Your task to perform on an android device: turn notification dots off Image 0: 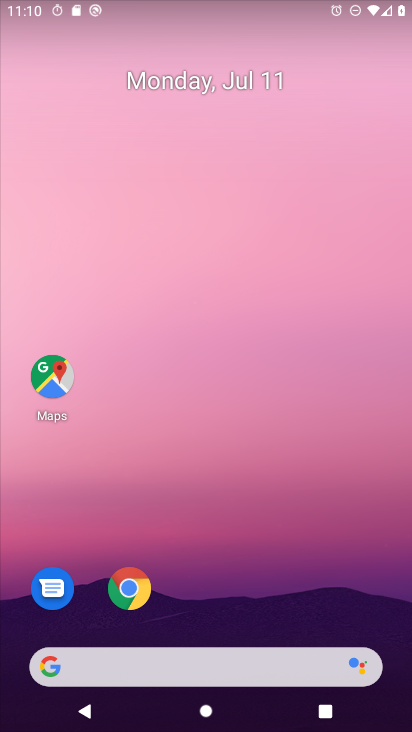
Step 0: drag from (148, 613) to (261, 45)
Your task to perform on an android device: turn notification dots off Image 1: 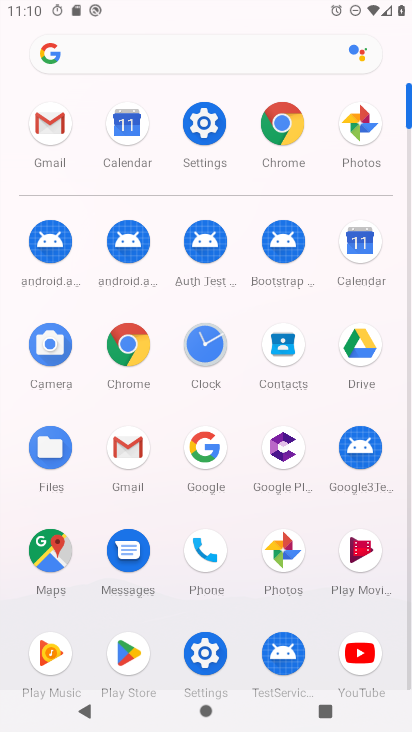
Step 1: click (199, 109)
Your task to perform on an android device: turn notification dots off Image 2: 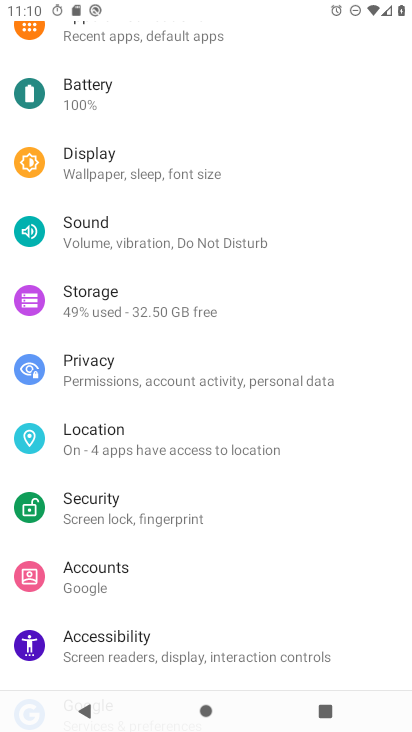
Step 2: drag from (193, 140) to (196, 617)
Your task to perform on an android device: turn notification dots off Image 3: 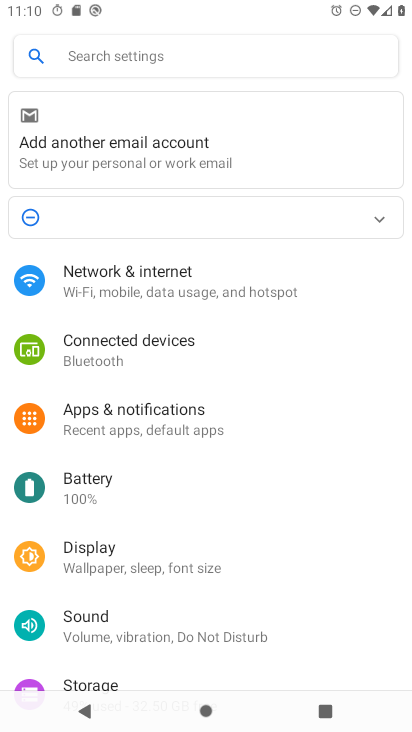
Step 3: click (181, 421)
Your task to perform on an android device: turn notification dots off Image 4: 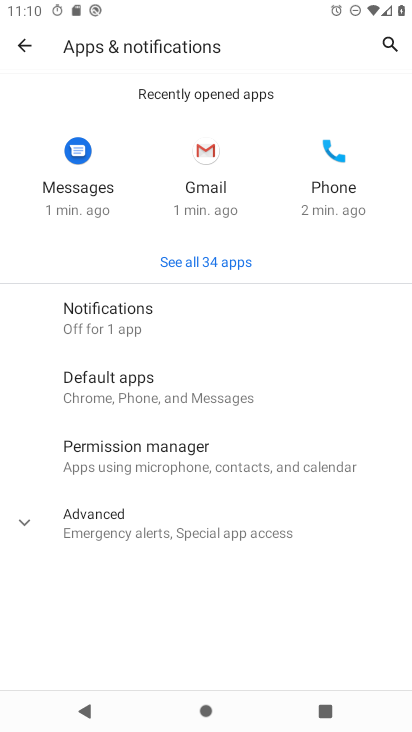
Step 4: click (158, 311)
Your task to perform on an android device: turn notification dots off Image 5: 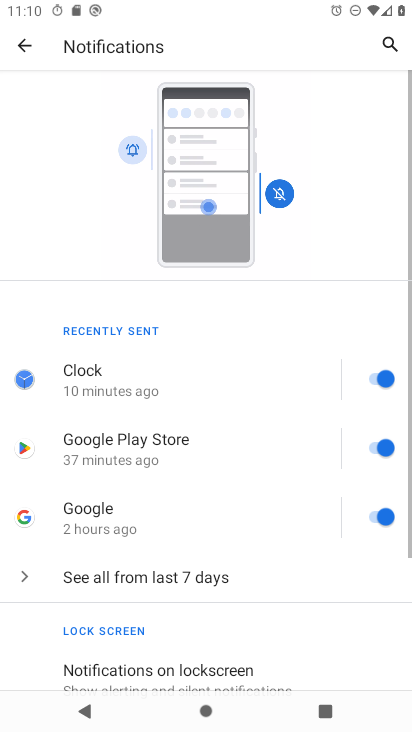
Step 5: drag from (206, 652) to (250, 211)
Your task to perform on an android device: turn notification dots off Image 6: 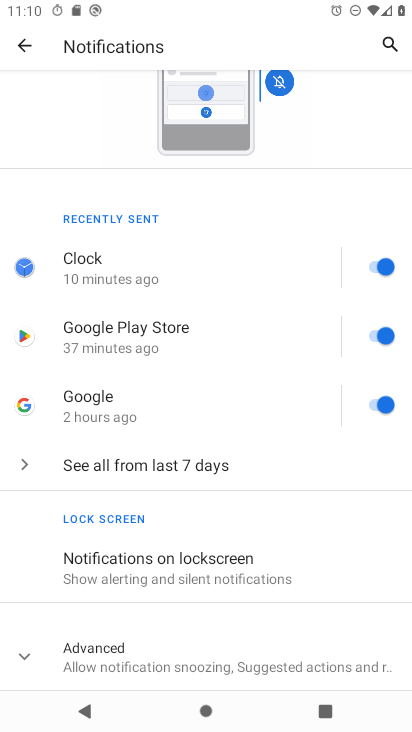
Step 6: click (102, 649)
Your task to perform on an android device: turn notification dots off Image 7: 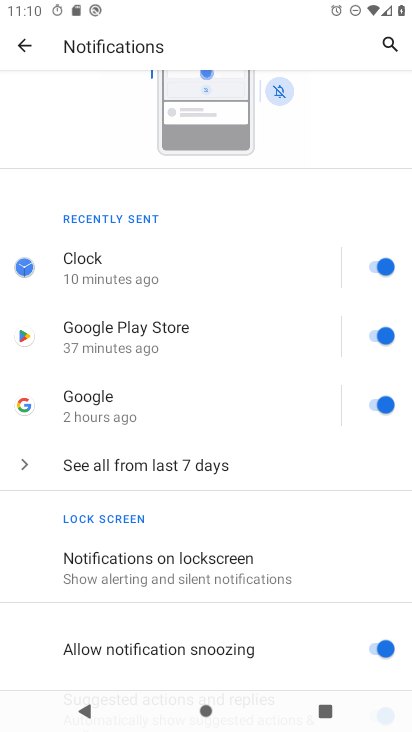
Step 7: task complete